Your task to perform on an android device: Open battery settings Image 0: 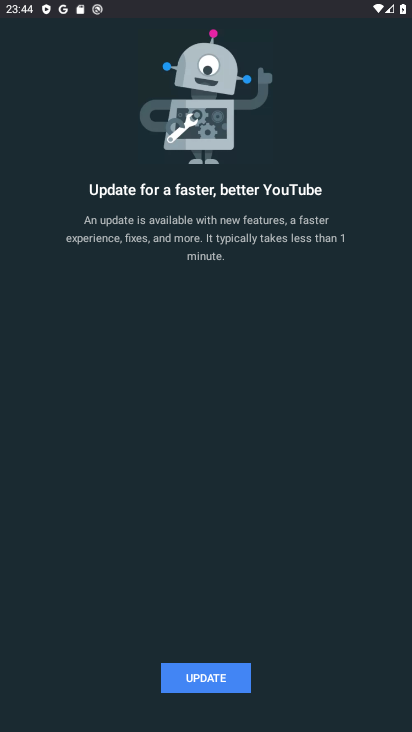
Step 0: press home button
Your task to perform on an android device: Open battery settings Image 1: 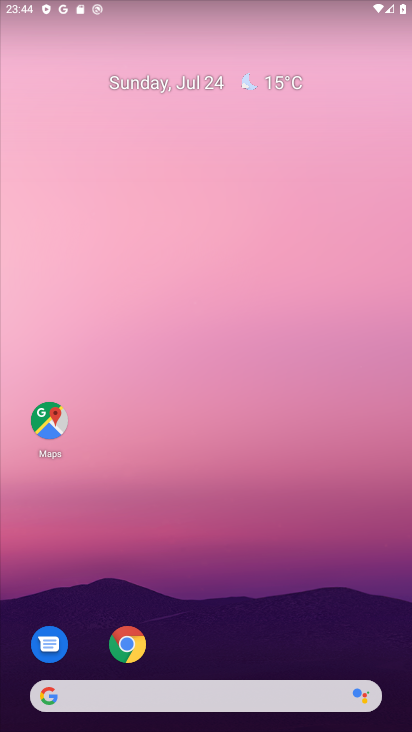
Step 1: click (223, 725)
Your task to perform on an android device: Open battery settings Image 2: 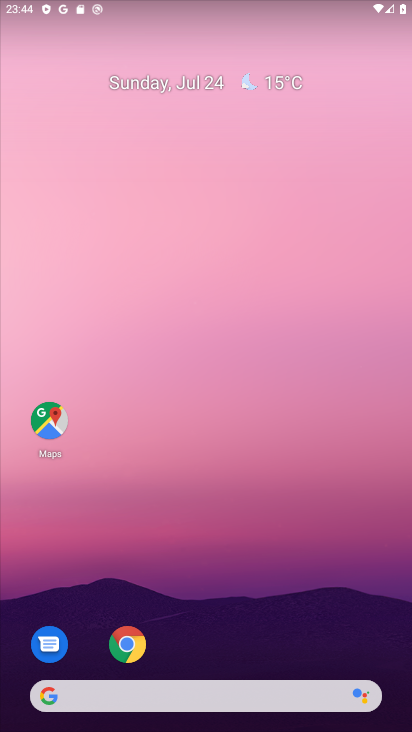
Step 2: drag from (223, 413) to (229, 295)
Your task to perform on an android device: Open battery settings Image 3: 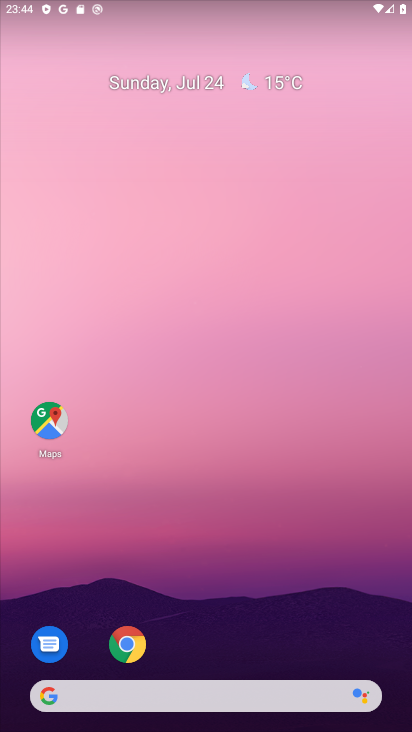
Step 3: drag from (208, 719) to (208, 231)
Your task to perform on an android device: Open battery settings Image 4: 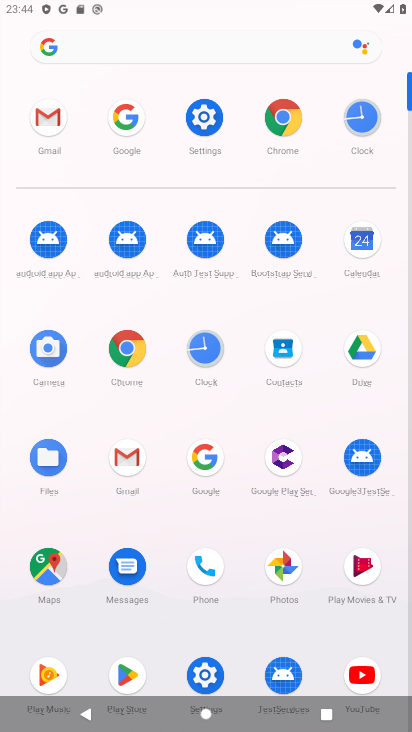
Step 4: click (209, 117)
Your task to perform on an android device: Open battery settings Image 5: 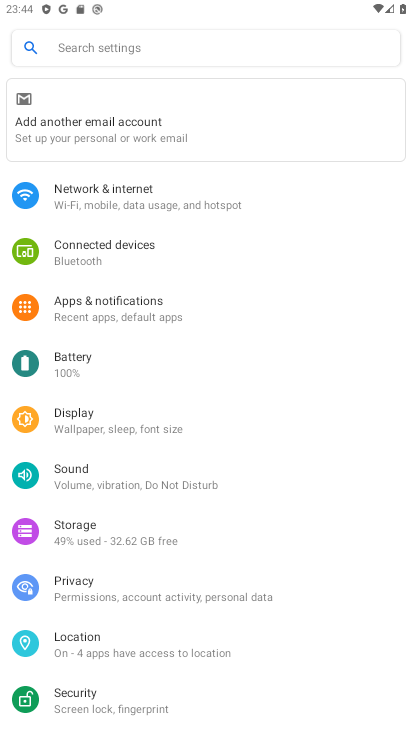
Step 5: click (67, 365)
Your task to perform on an android device: Open battery settings Image 6: 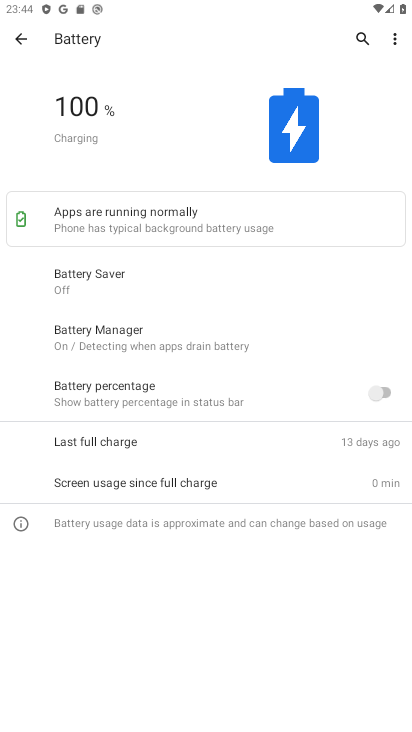
Step 6: task complete